Your task to perform on an android device: open wifi settings Image 0: 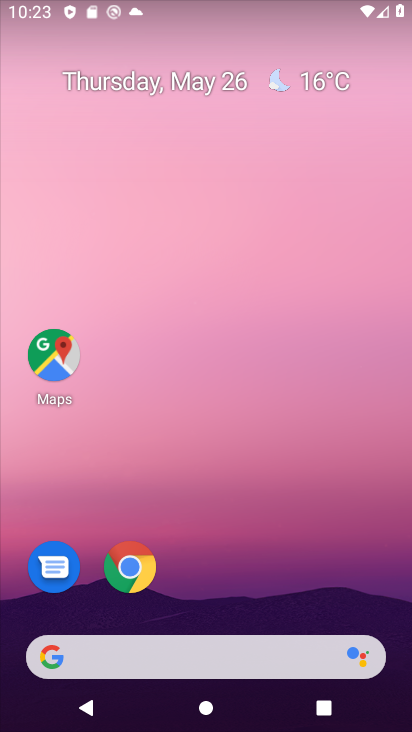
Step 0: press home button
Your task to perform on an android device: open wifi settings Image 1: 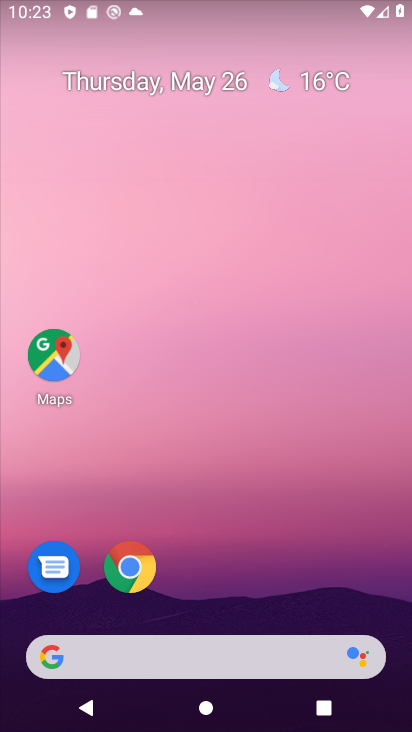
Step 1: drag from (209, 578) to (219, 54)
Your task to perform on an android device: open wifi settings Image 2: 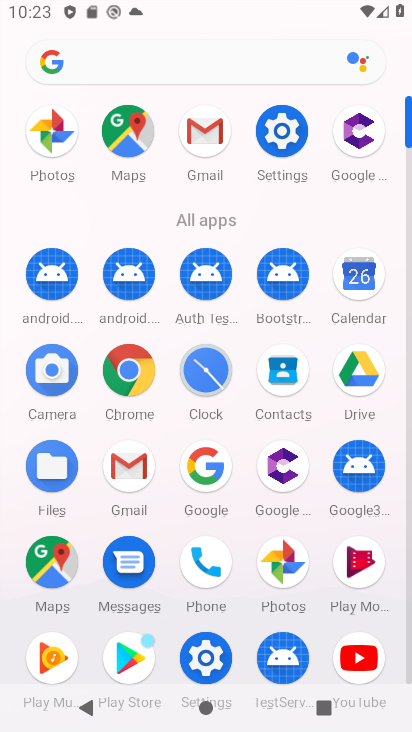
Step 2: click (278, 125)
Your task to perform on an android device: open wifi settings Image 3: 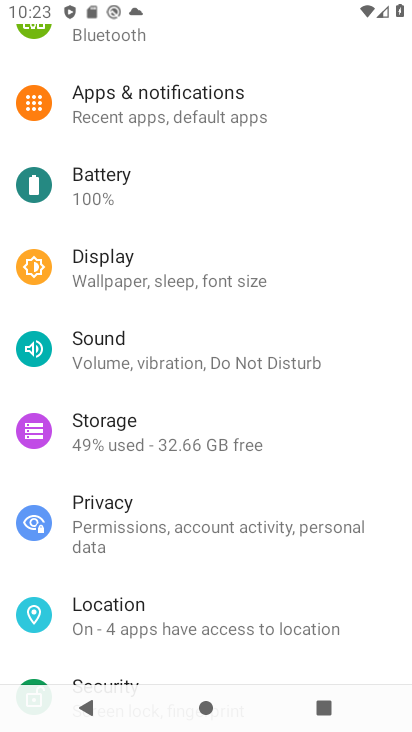
Step 3: drag from (191, 128) to (214, 668)
Your task to perform on an android device: open wifi settings Image 4: 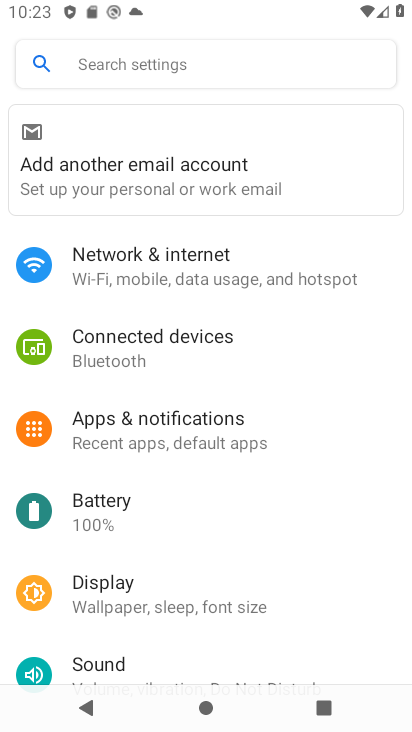
Step 4: click (203, 264)
Your task to perform on an android device: open wifi settings Image 5: 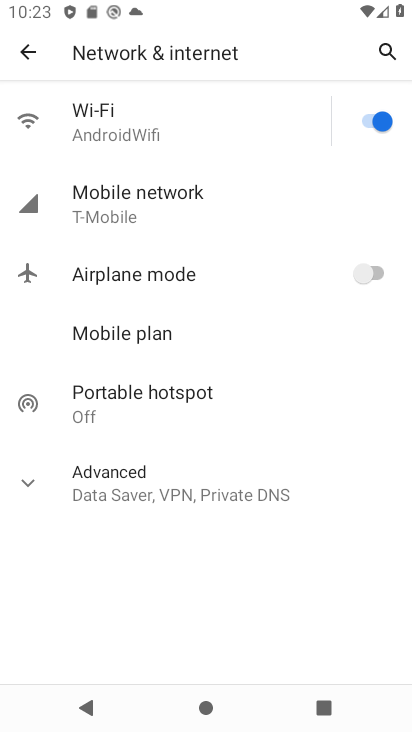
Step 5: click (228, 112)
Your task to perform on an android device: open wifi settings Image 6: 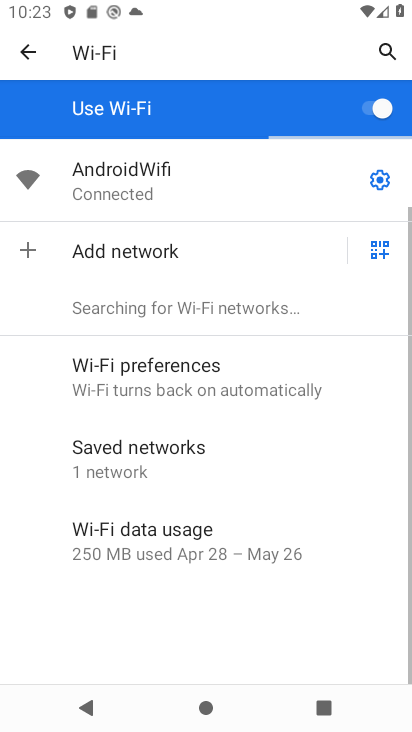
Step 6: task complete